Your task to perform on an android device: Go to Maps Image 0: 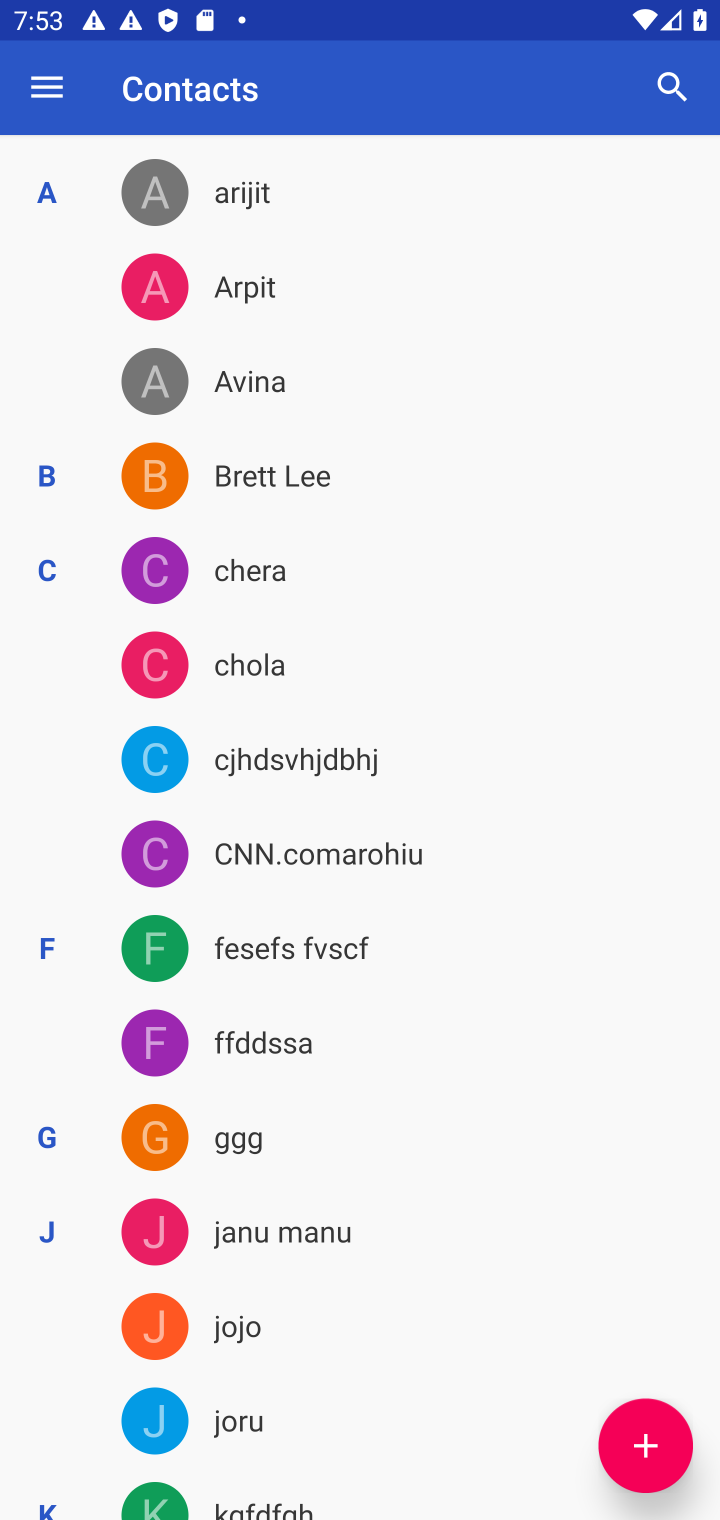
Step 0: press home button
Your task to perform on an android device: Go to Maps Image 1: 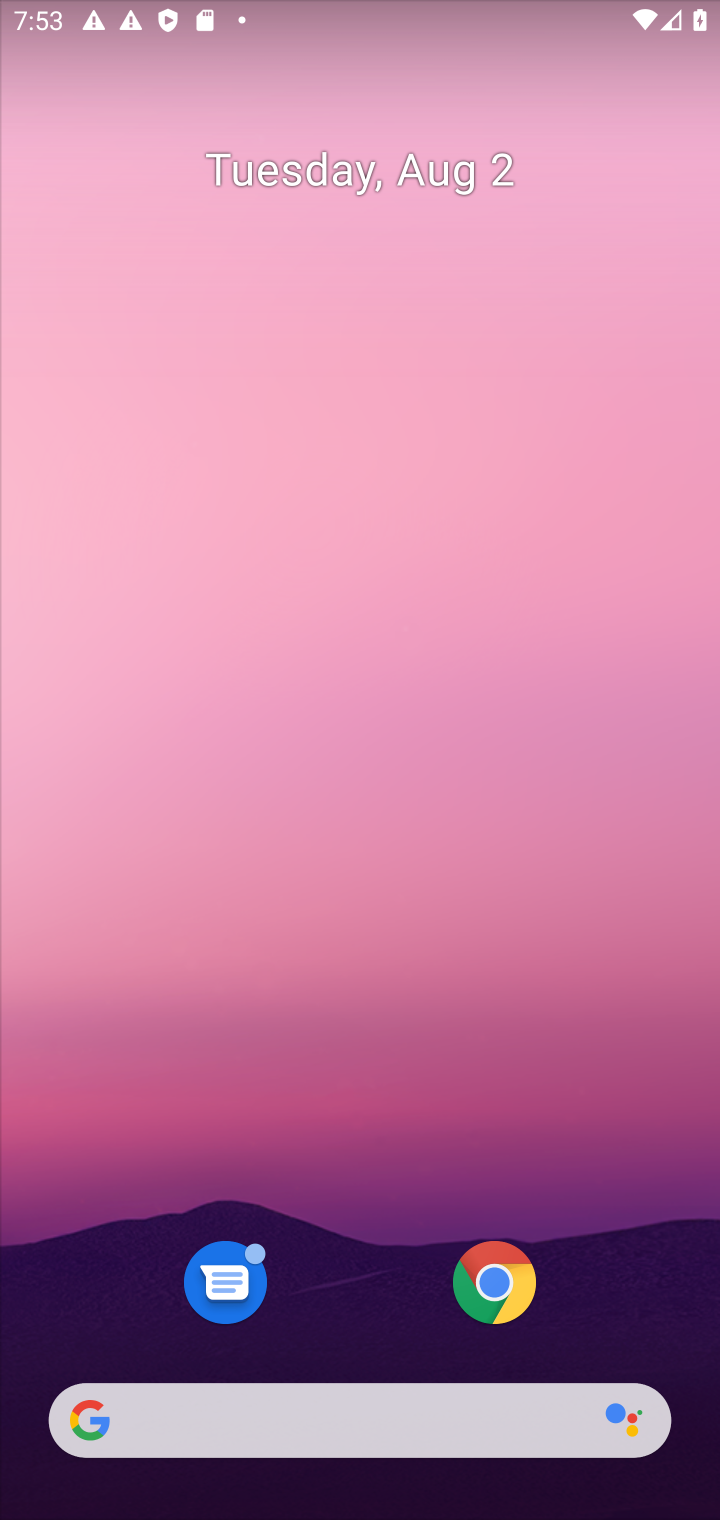
Step 1: drag from (405, 1341) to (639, 37)
Your task to perform on an android device: Go to Maps Image 2: 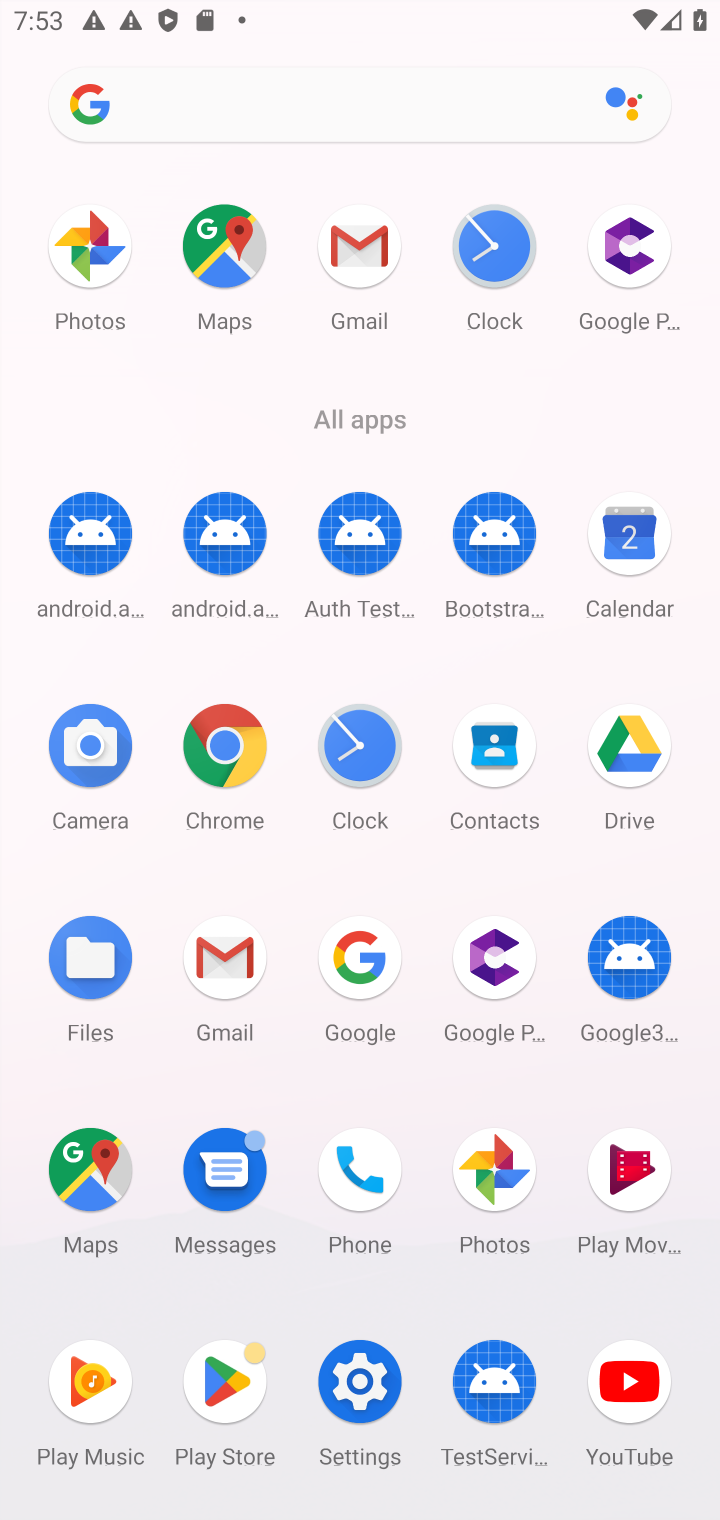
Step 2: click (101, 1211)
Your task to perform on an android device: Go to Maps Image 3: 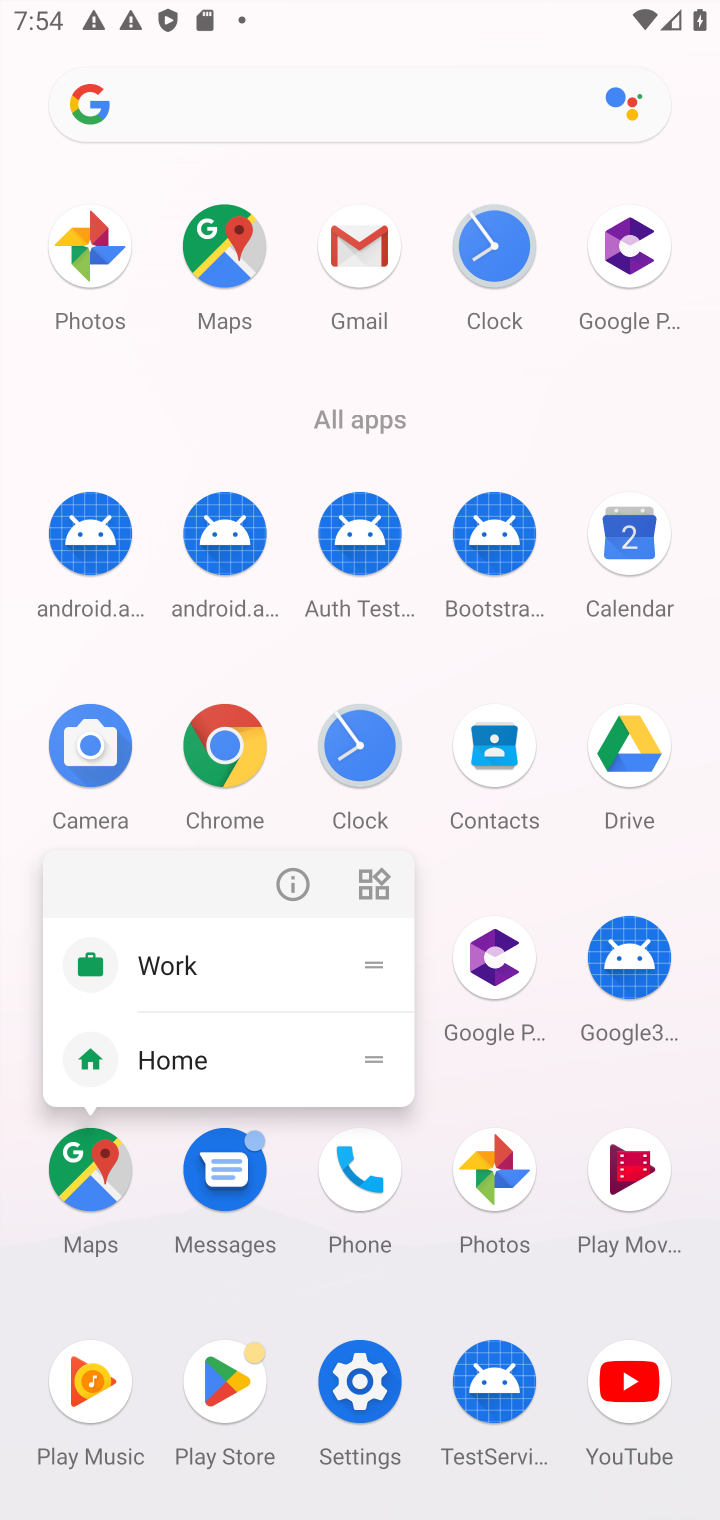
Step 3: click (77, 1154)
Your task to perform on an android device: Go to Maps Image 4: 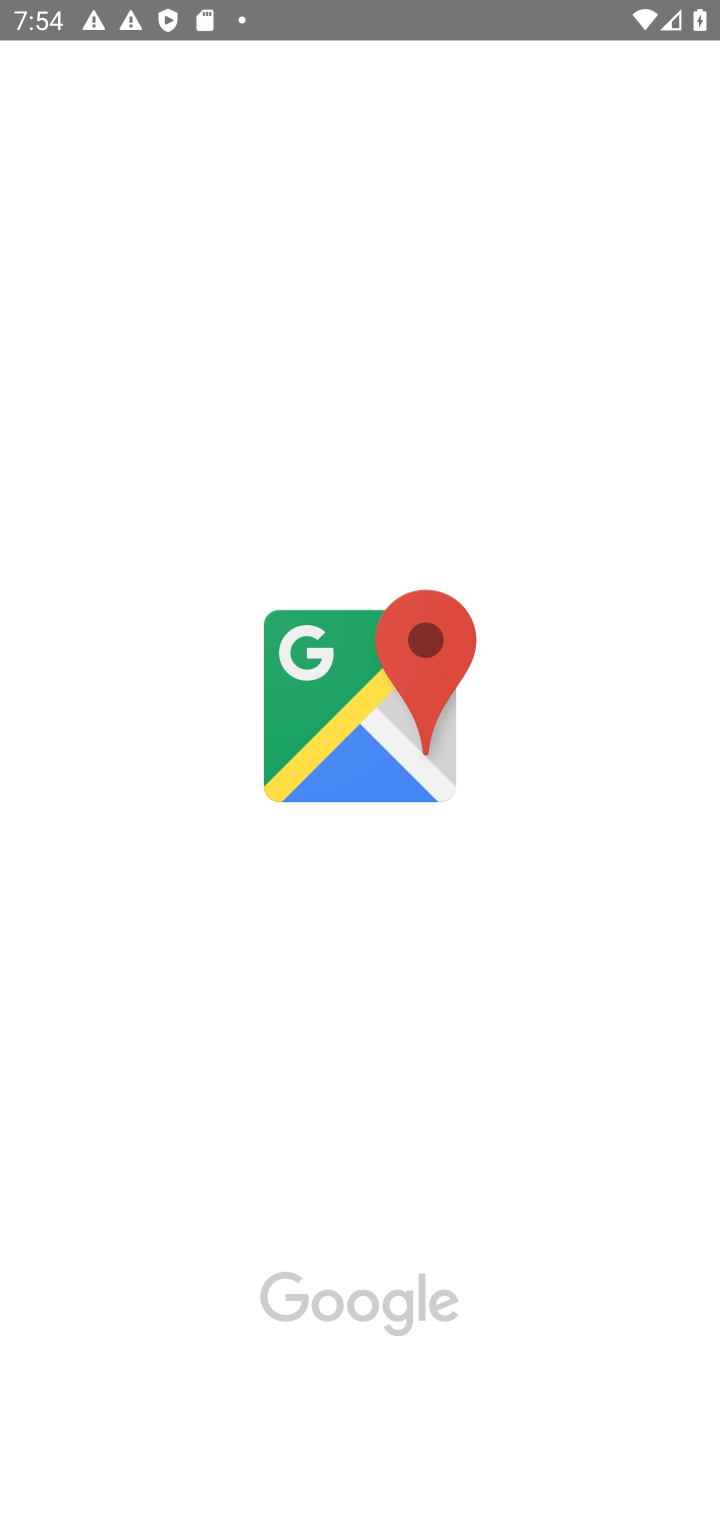
Step 4: click (86, 1179)
Your task to perform on an android device: Go to Maps Image 5: 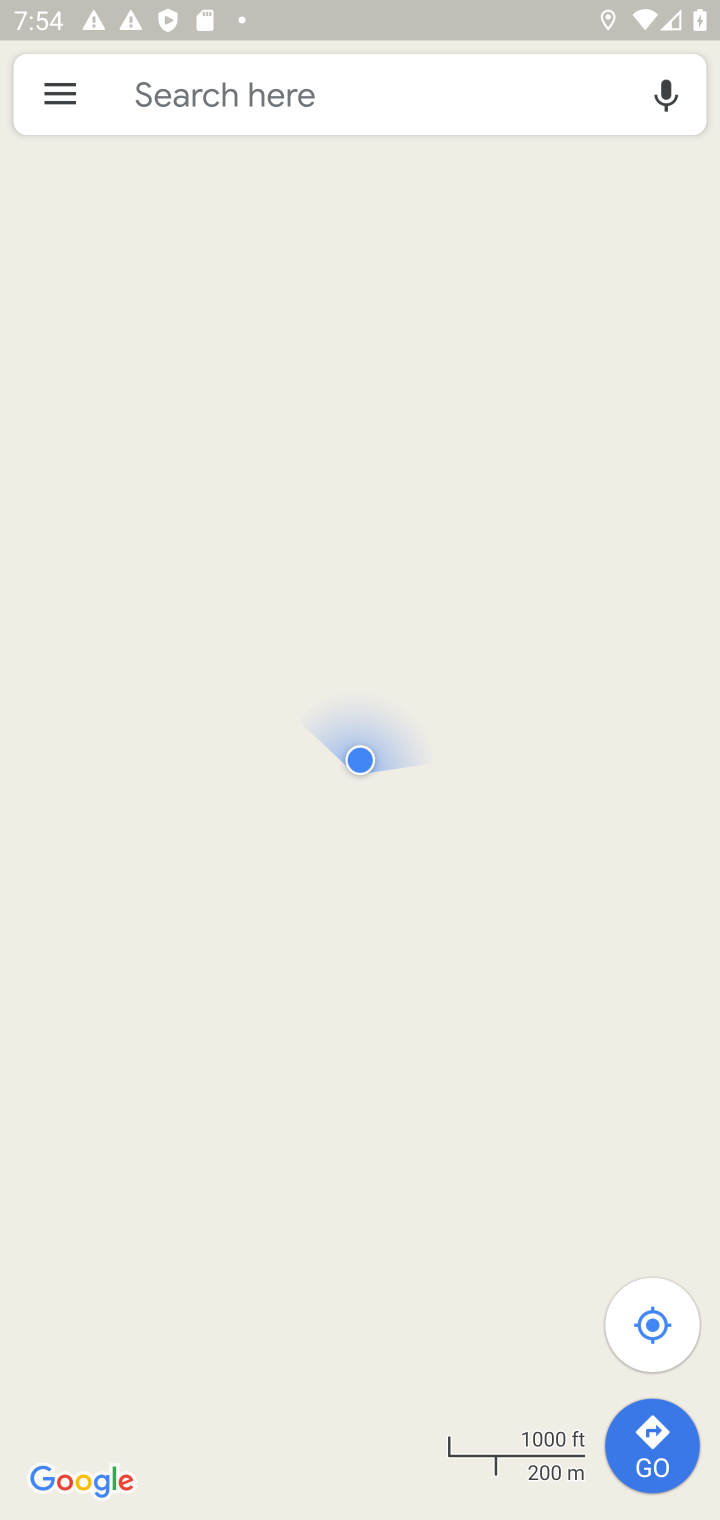
Step 5: task complete